Your task to perform on an android device: make emails show in primary in the gmail app Image 0: 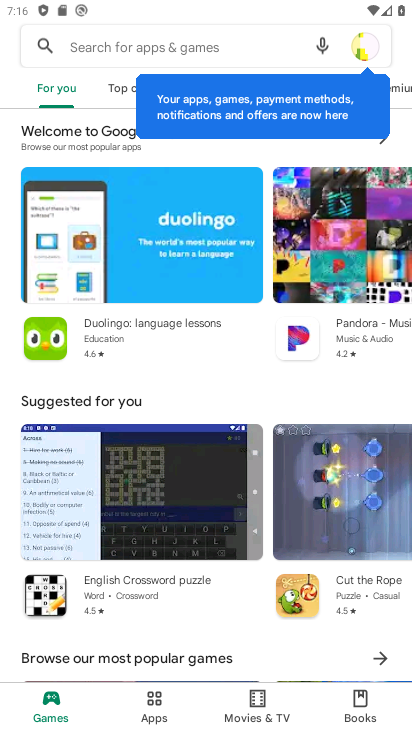
Step 0: press home button
Your task to perform on an android device: make emails show in primary in the gmail app Image 1: 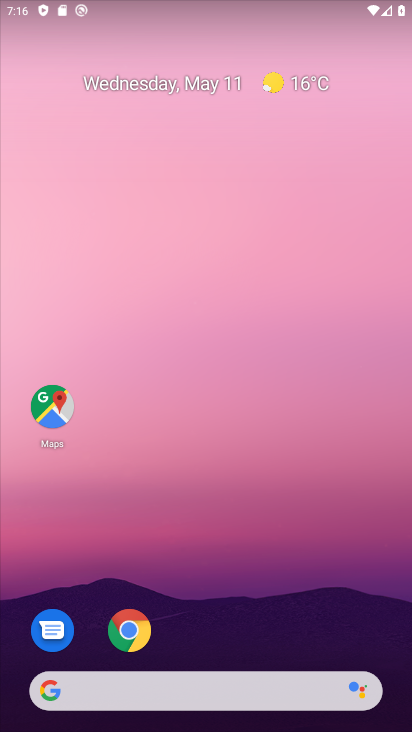
Step 1: drag from (341, 394) to (7, 303)
Your task to perform on an android device: make emails show in primary in the gmail app Image 2: 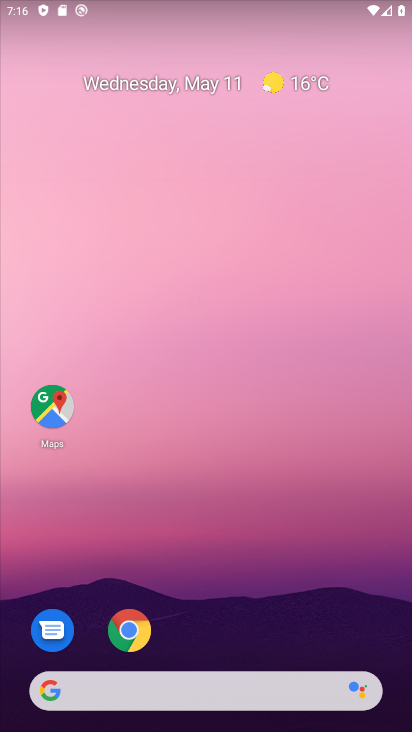
Step 2: drag from (393, 472) to (408, 196)
Your task to perform on an android device: make emails show in primary in the gmail app Image 3: 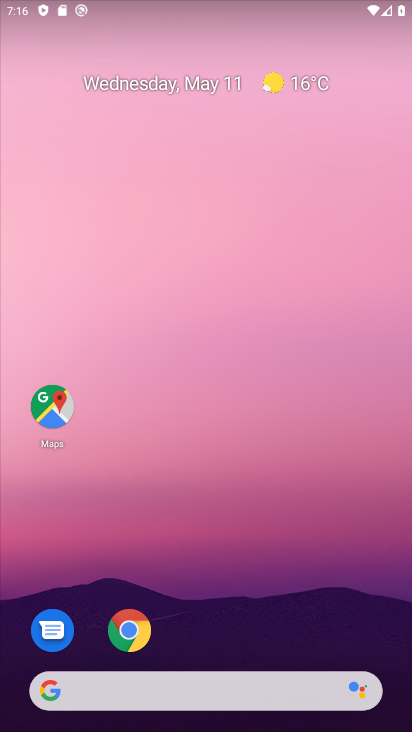
Step 3: drag from (248, 526) to (213, 13)
Your task to perform on an android device: make emails show in primary in the gmail app Image 4: 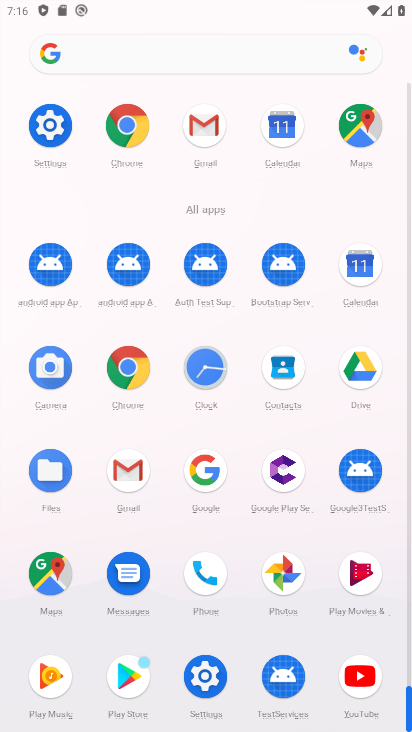
Step 4: drag from (411, 328) to (411, 132)
Your task to perform on an android device: make emails show in primary in the gmail app Image 5: 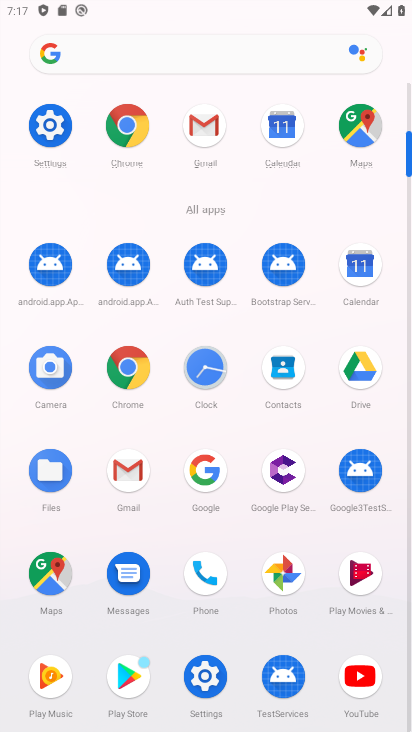
Step 5: click (212, 139)
Your task to perform on an android device: make emails show in primary in the gmail app Image 6: 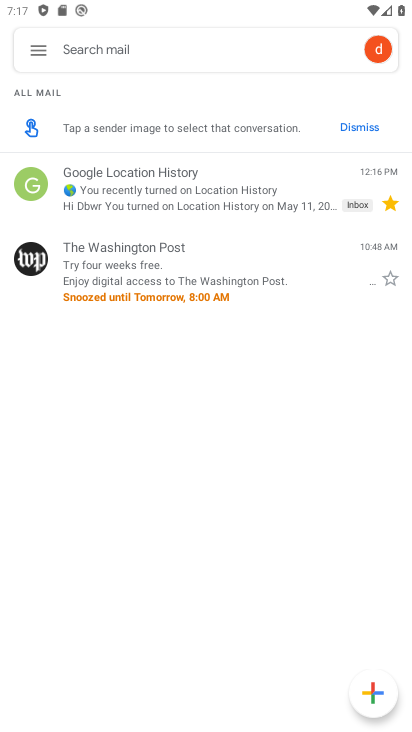
Step 6: click (38, 42)
Your task to perform on an android device: make emails show in primary in the gmail app Image 7: 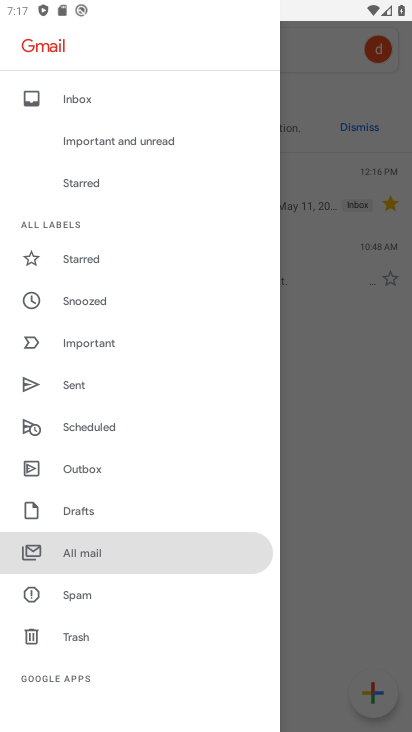
Step 7: drag from (136, 526) to (194, 102)
Your task to perform on an android device: make emails show in primary in the gmail app Image 8: 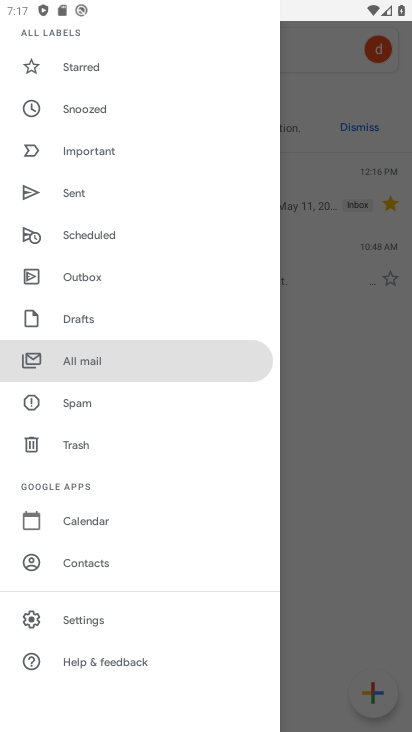
Step 8: click (81, 618)
Your task to perform on an android device: make emails show in primary in the gmail app Image 9: 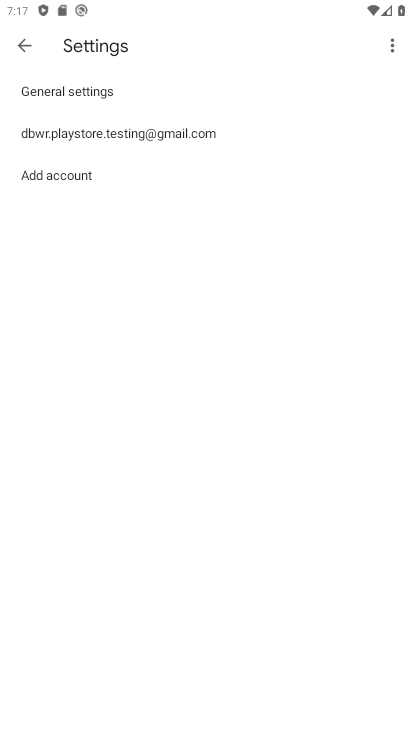
Step 9: click (76, 130)
Your task to perform on an android device: make emails show in primary in the gmail app Image 10: 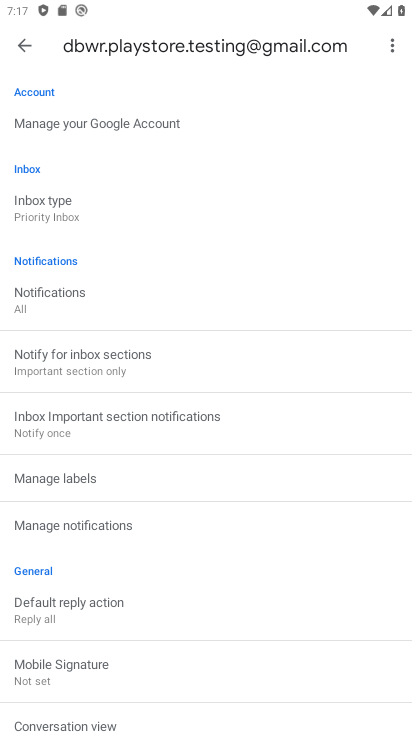
Step 10: click (51, 204)
Your task to perform on an android device: make emails show in primary in the gmail app Image 11: 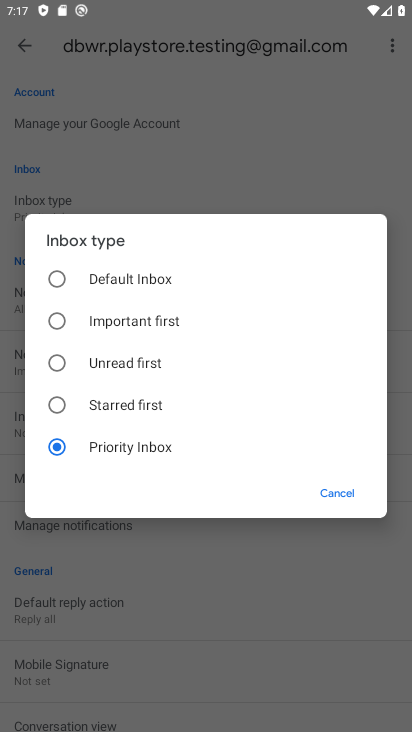
Step 11: click (85, 283)
Your task to perform on an android device: make emails show in primary in the gmail app Image 12: 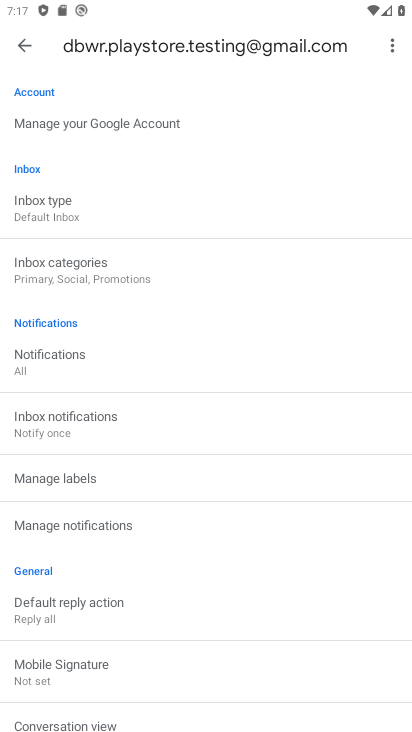
Step 12: task complete